Your task to perform on an android device: Open Google Chrome and click the shortcut for Amazon.com Image 0: 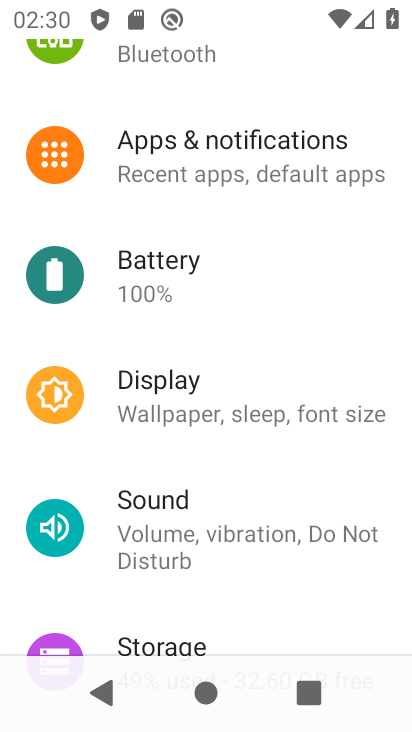
Step 0: press home button
Your task to perform on an android device: Open Google Chrome and click the shortcut for Amazon.com Image 1: 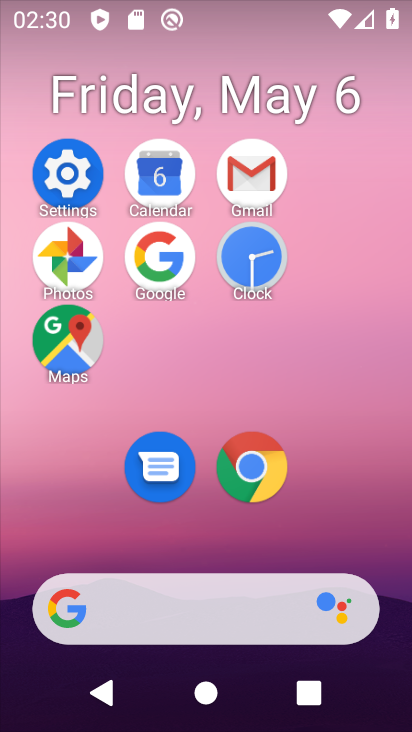
Step 1: click (269, 465)
Your task to perform on an android device: Open Google Chrome and click the shortcut for Amazon.com Image 2: 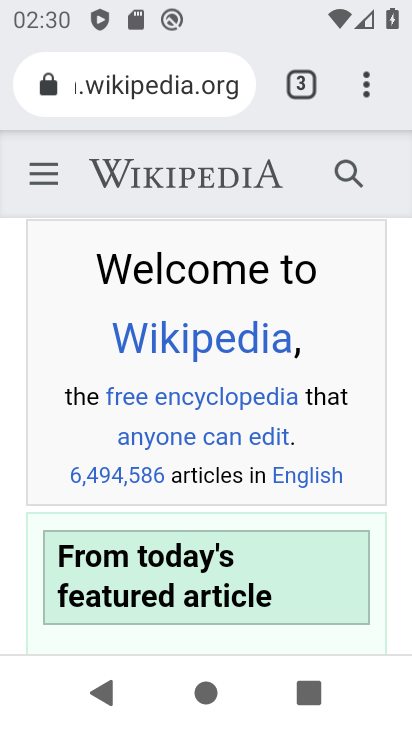
Step 2: click (300, 75)
Your task to perform on an android device: Open Google Chrome and click the shortcut for Amazon.com Image 3: 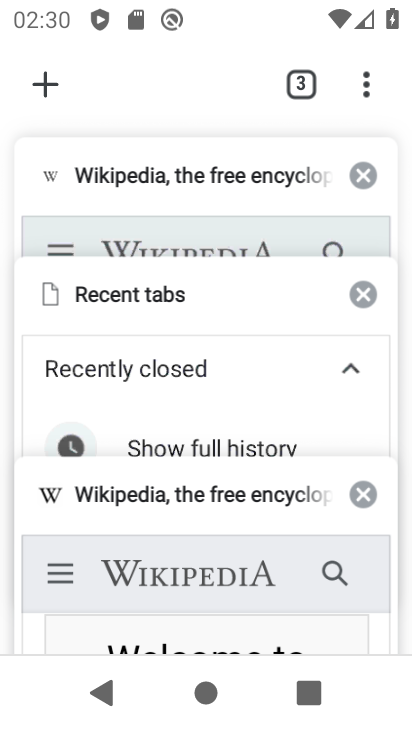
Step 3: click (57, 82)
Your task to perform on an android device: Open Google Chrome and click the shortcut for Amazon.com Image 4: 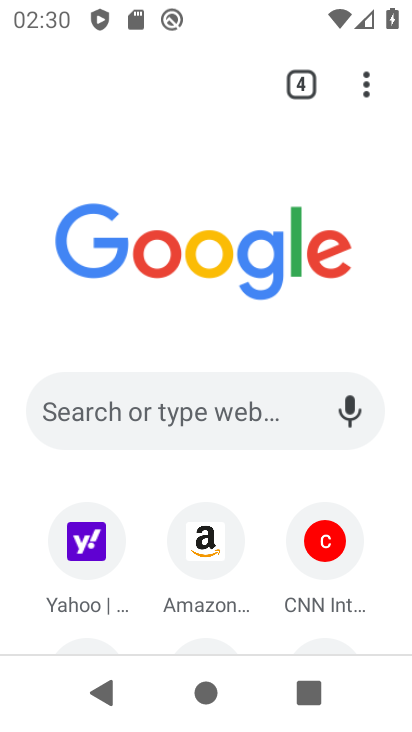
Step 4: click (197, 535)
Your task to perform on an android device: Open Google Chrome and click the shortcut for Amazon.com Image 5: 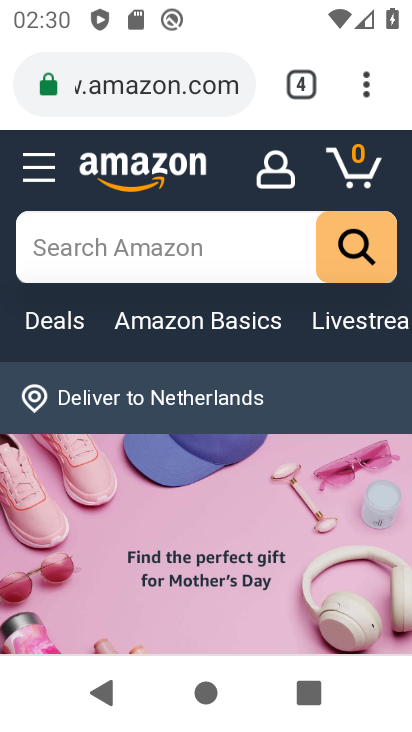
Step 5: click (372, 87)
Your task to perform on an android device: Open Google Chrome and click the shortcut for Amazon.com Image 6: 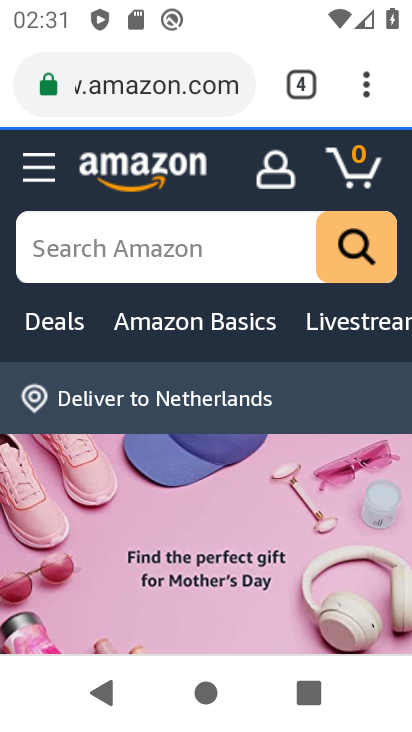
Step 6: click (380, 77)
Your task to perform on an android device: Open Google Chrome and click the shortcut for Amazon.com Image 7: 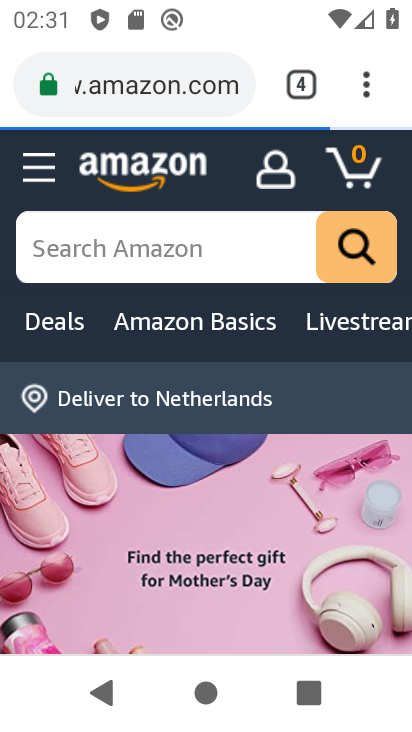
Step 7: click (373, 82)
Your task to perform on an android device: Open Google Chrome and click the shortcut for Amazon.com Image 8: 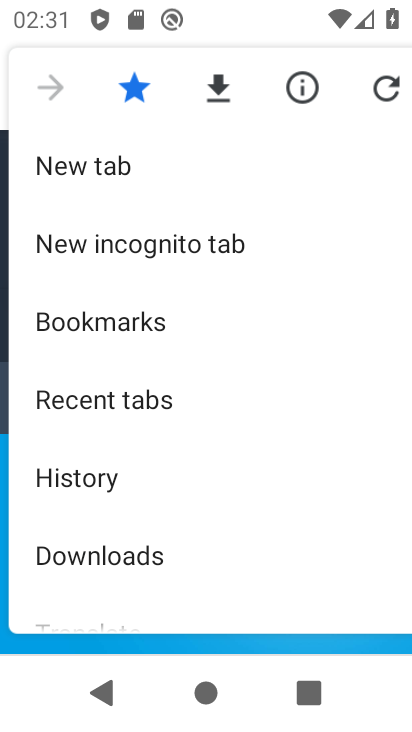
Step 8: drag from (175, 503) to (234, 186)
Your task to perform on an android device: Open Google Chrome and click the shortcut for Amazon.com Image 9: 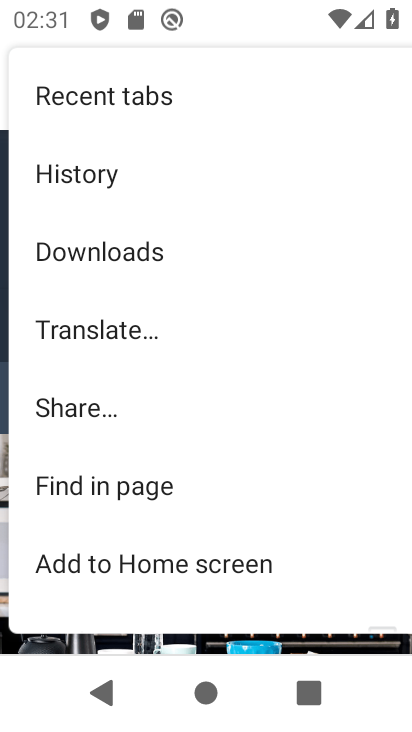
Step 9: click (269, 553)
Your task to perform on an android device: Open Google Chrome and click the shortcut for Amazon.com Image 10: 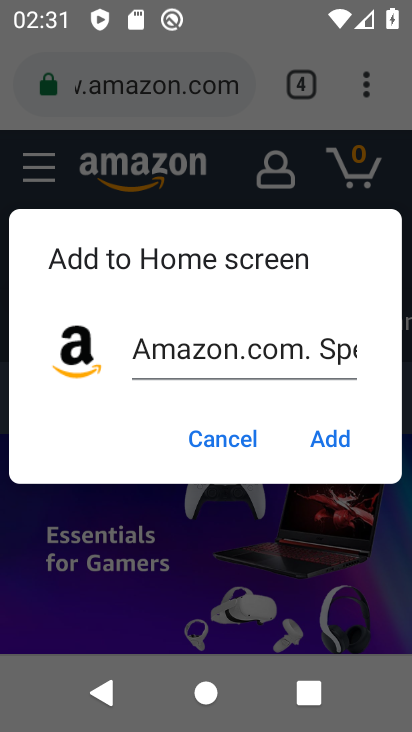
Step 10: click (349, 433)
Your task to perform on an android device: Open Google Chrome and click the shortcut for Amazon.com Image 11: 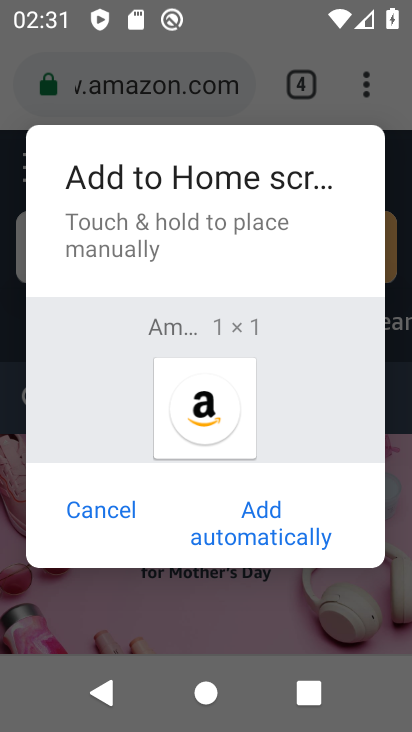
Step 11: click (277, 536)
Your task to perform on an android device: Open Google Chrome and click the shortcut for Amazon.com Image 12: 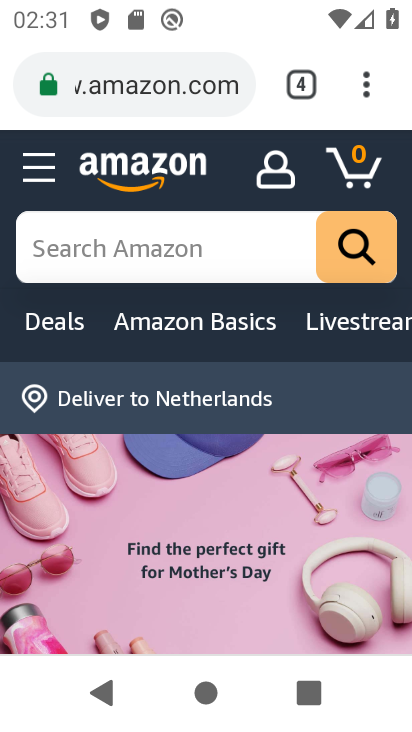
Step 12: task complete